Your task to perform on an android device: open app "File Manager" Image 0: 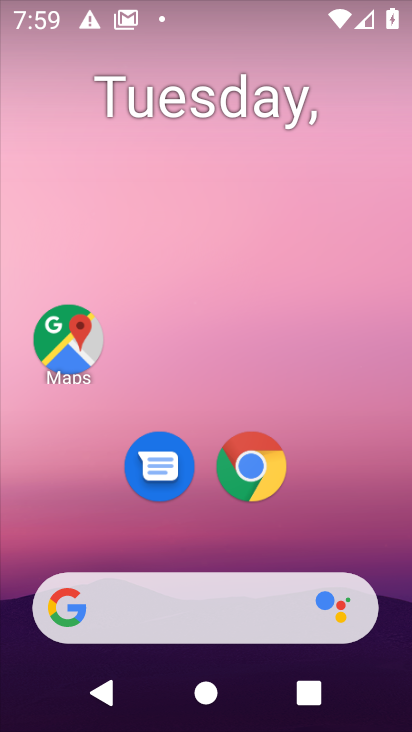
Step 0: drag from (159, 557) to (230, 90)
Your task to perform on an android device: open app "File Manager" Image 1: 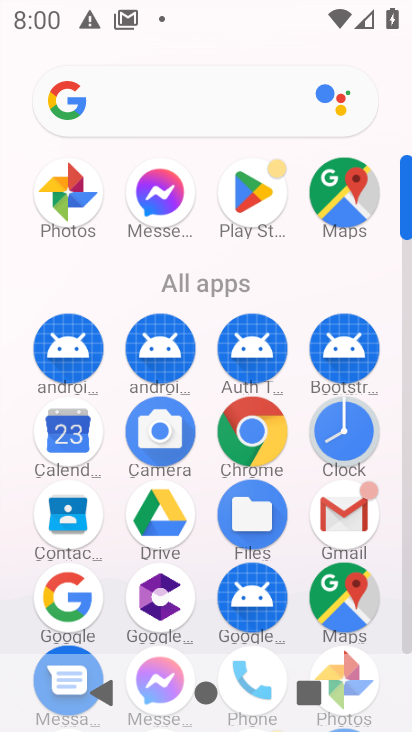
Step 1: click (254, 206)
Your task to perform on an android device: open app "File Manager" Image 2: 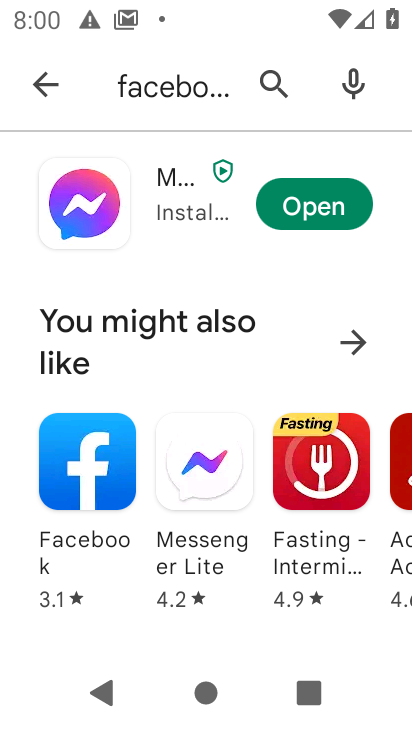
Step 2: click (295, 73)
Your task to perform on an android device: open app "File Manager" Image 3: 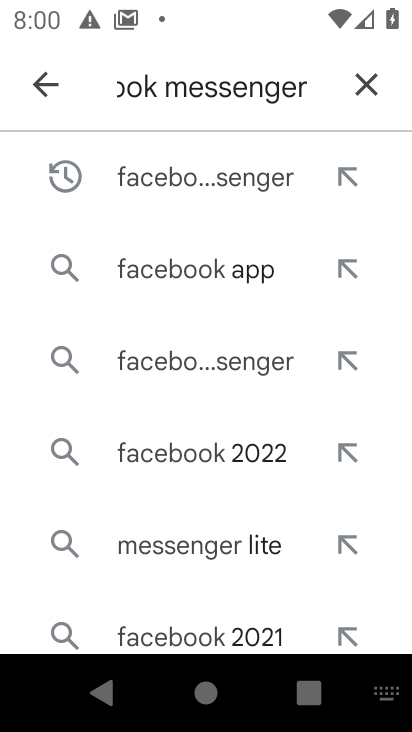
Step 3: click (366, 88)
Your task to perform on an android device: open app "File Manager" Image 4: 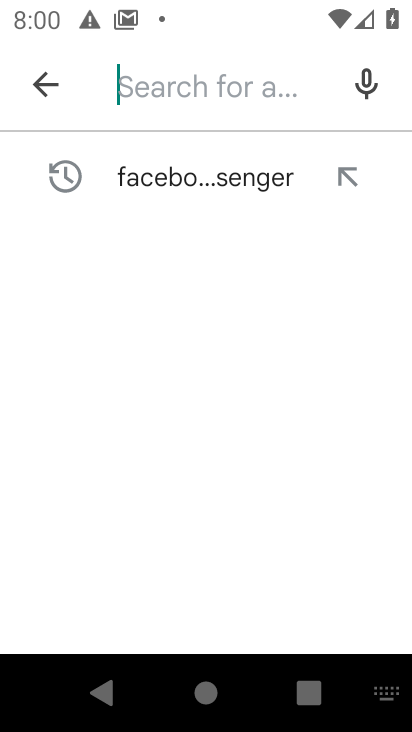
Step 4: click (175, 79)
Your task to perform on an android device: open app "File Manager" Image 5: 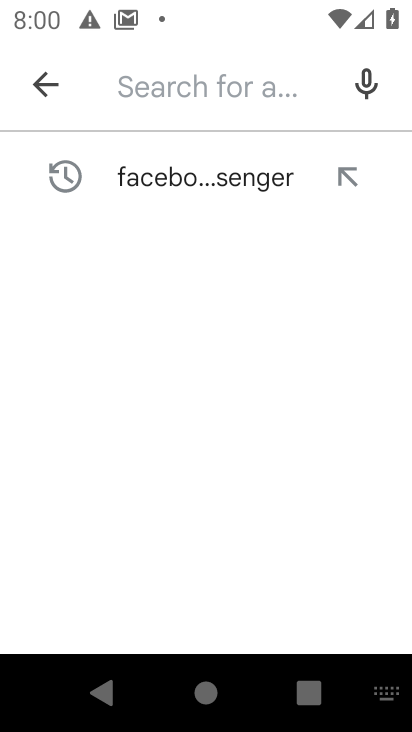
Step 5: type "File Manager"
Your task to perform on an android device: open app "File Manager" Image 6: 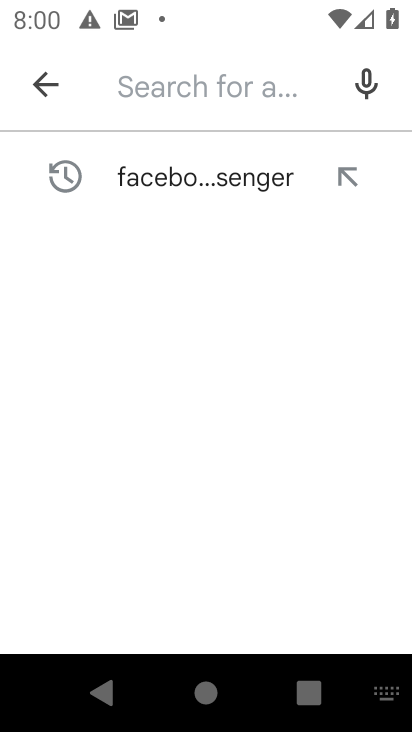
Step 6: click (164, 436)
Your task to perform on an android device: open app "File Manager" Image 7: 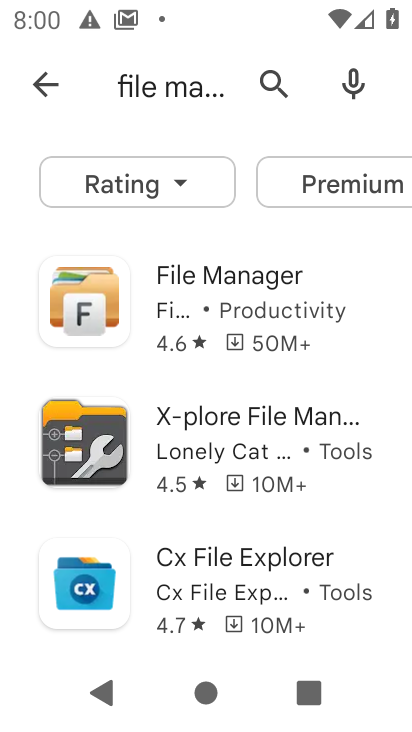
Step 7: click (267, 318)
Your task to perform on an android device: open app "File Manager" Image 8: 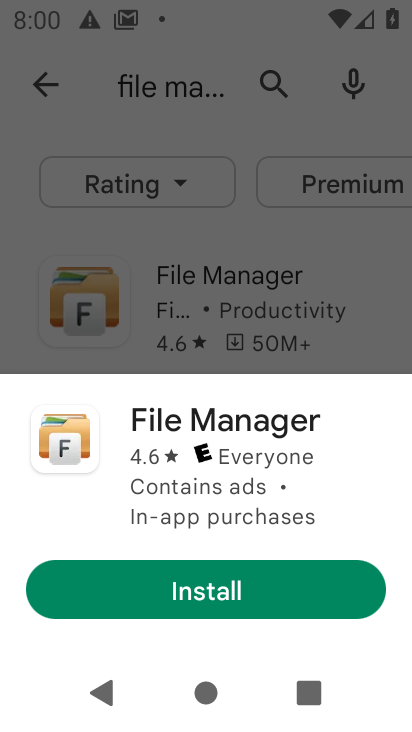
Step 8: task complete